Your task to perform on an android device: What's the weather today? Image 0: 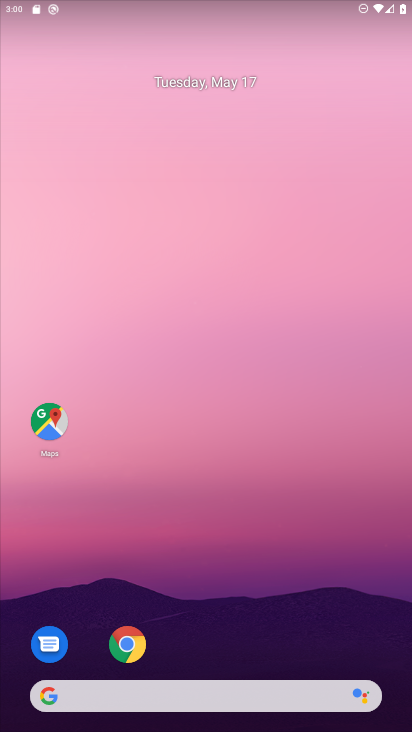
Step 0: drag from (259, 640) to (184, 271)
Your task to perform on an android device: What's the weather today? Image 1: 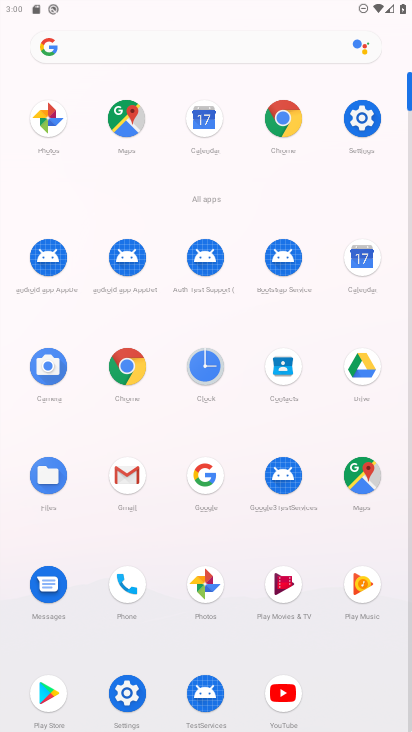
Step 1: click (281, 139)
Your task to perform on an android device: What's the weather today? Image 2: 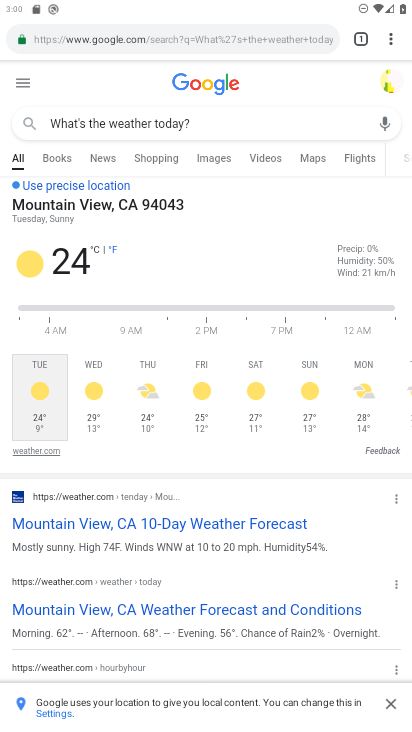
Step 2: task complete